Your task to perform on an android device: Open calendar and show me the first week of next month Image 0: 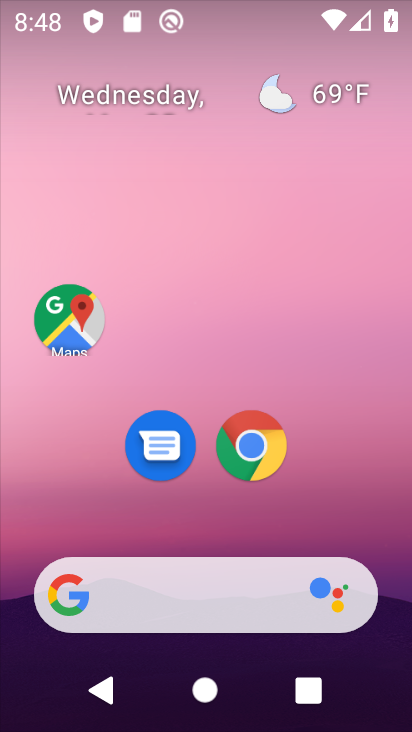
Step 0: drag from (354, 512) to (376, 90)
Your task to perform on an android device: Open calendar and show me the first week of next month Image 1: 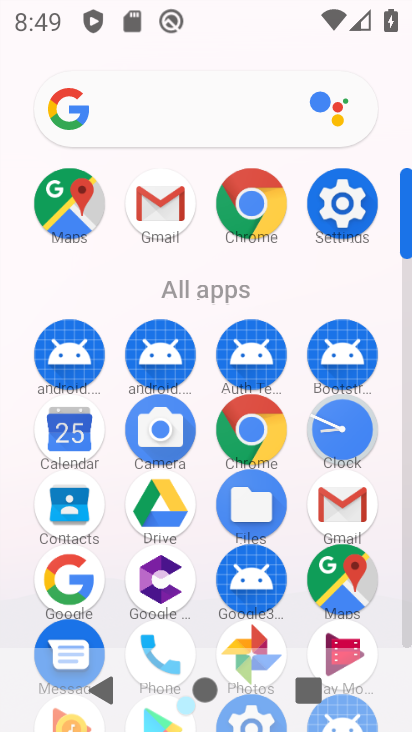
Step 1: click (57, 431)
Your task to perform on an android device: Open calendar and show me the first week of next month Image 2: 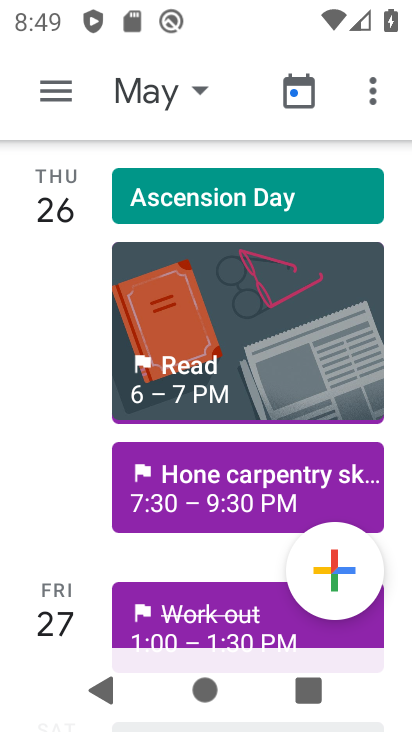
Step 2: click (188, 82)
Your task to perform on an android device: Open calendar and show me the first week of next month Image 3: 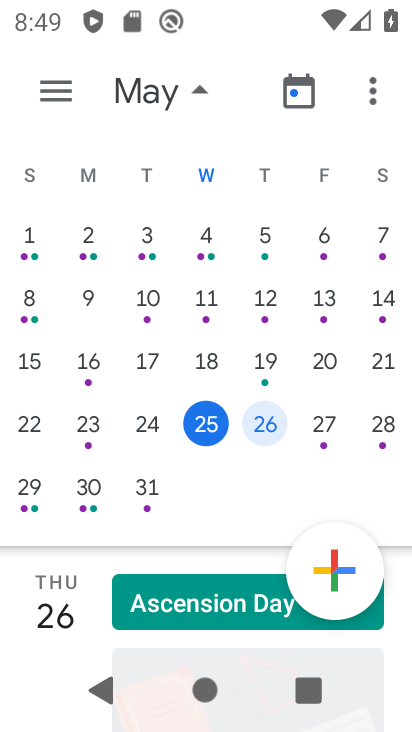
Step 3: drag from (390, 269) to (6, 258)
Your task to perform on an android device: Open calendar and show me the first week of next month Image 4: 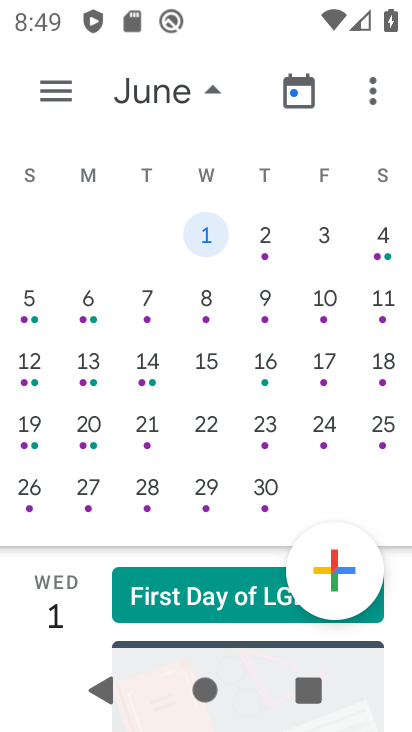
Step 4: click (84, 304)
Your task to perform on an android device: Open calendar and show me the first week of next month Image 5: 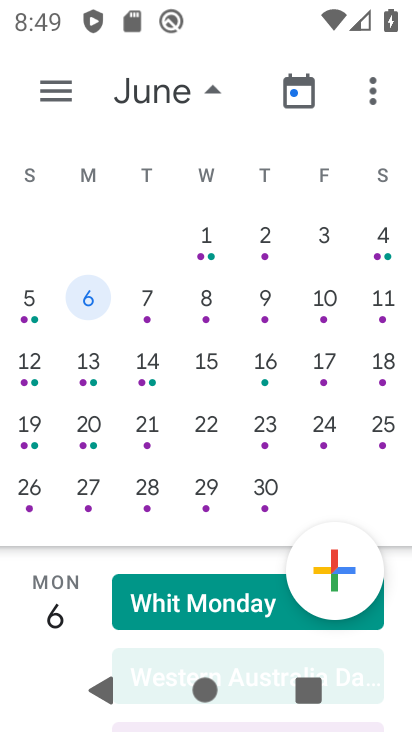
Step 5: click (382, 234)
Your task to perform on an android device: Open calendar and show me the first week of next month Image 6: 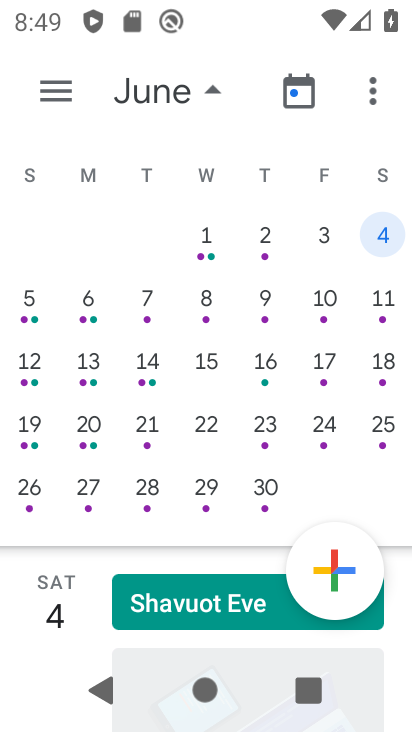
Step 6: task complete